Your task to perform on an android device: stop showing notifications on the lock screen Image 0: 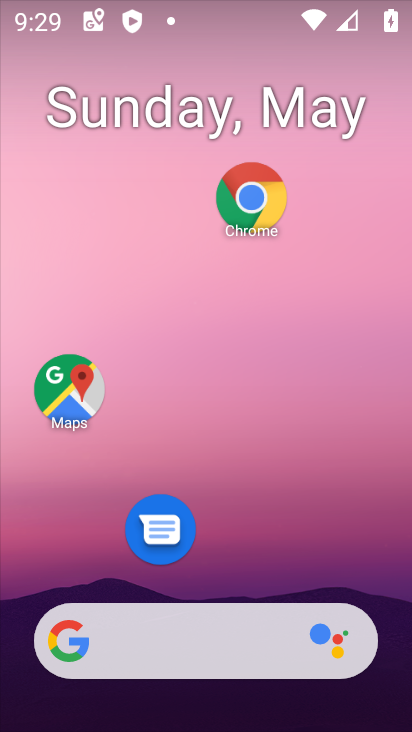
Step 0: drag from (264, 587) to (270, 78)
Your task to perform on an android device: stop showing notifications on the lock screen Image 1: 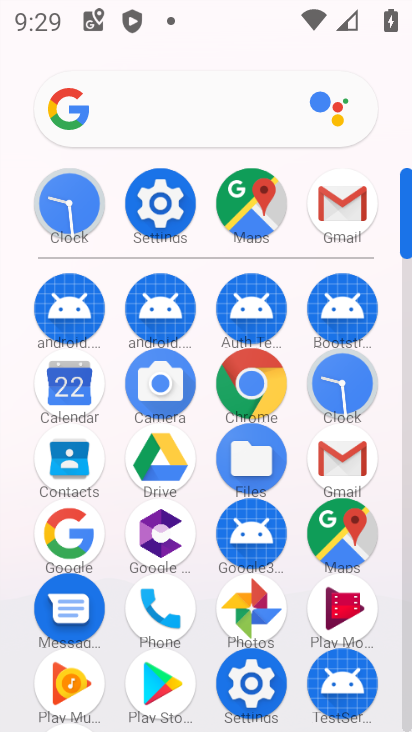
Step 1: click (151, 205)
Your task to perform on an android device: stop showing notifications on the lock screen Image 2: 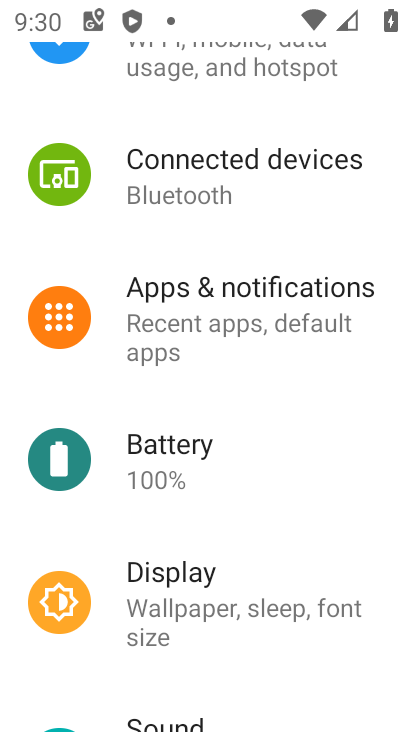
Step 2: click (290, 306)
Your task to perform on an android device: stop showing notifications on the lock screen Image 3: 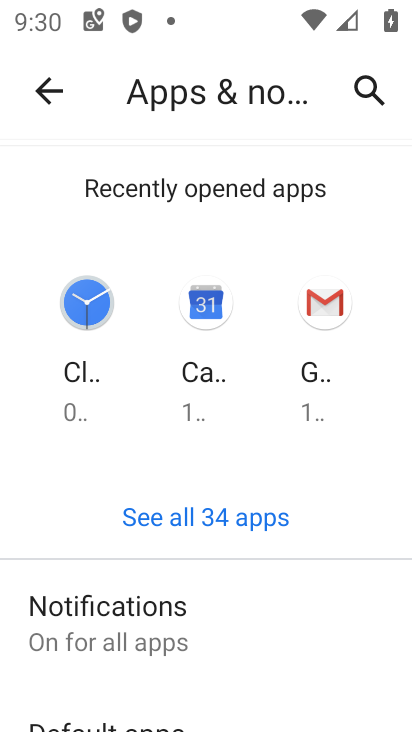
Step 3: click (180, 609)
Your task to perform on an android device: stop showing notifications on the lock screen Image 4: 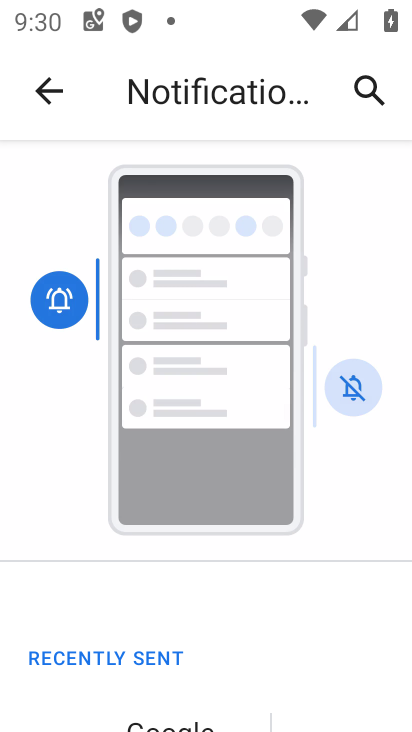
Step 4: drag from (202, 627) to (268, 129)
Your task to perform on an android device: stop showing notifications on the lock screen Image 5: 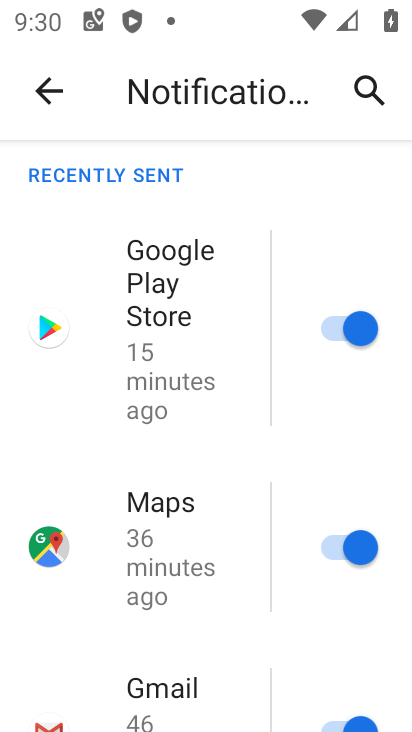
Step 5: drag from (238, 581) to (262, 162)
Your task to perform on an android device: stop showing notifications on the lock screen Image 6: 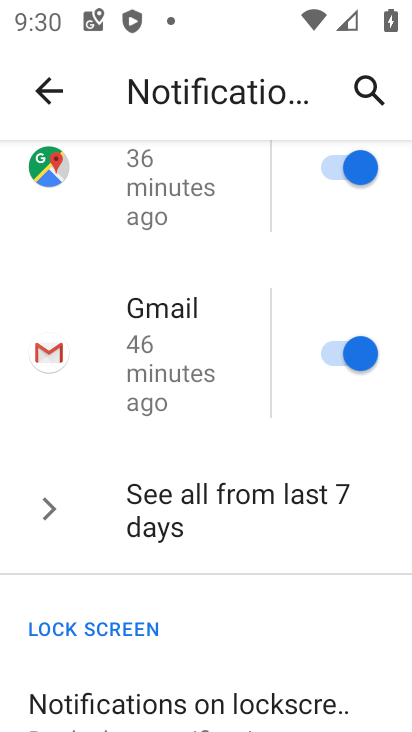
Step 6: drag from (245, 591) to (276, 233)
Your task to perform on an android device: stop showing notifications on the lock screen Image 7: 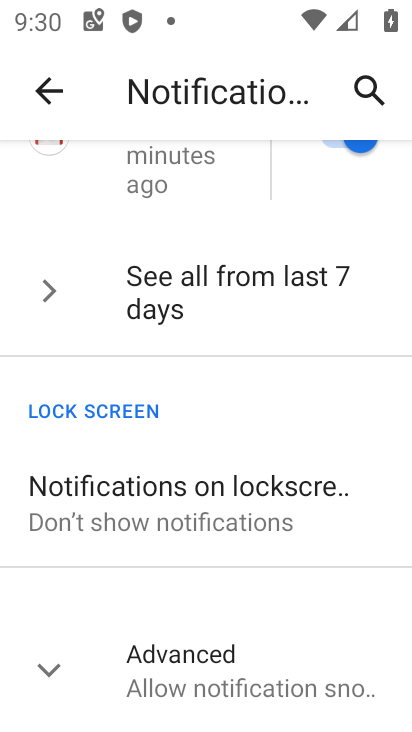
Step 7: click (130, 479)
Your task to perform on an android device: stop showing notifications on the lock screen Image 8: 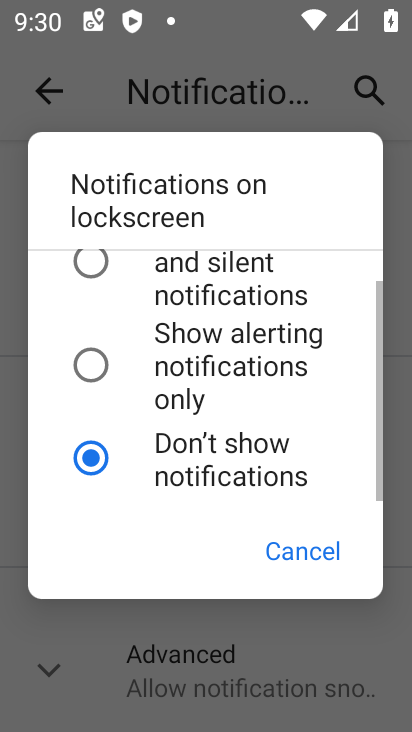
Step 8: click (142, 450)
Your task to perform on an android device: stop showing notifications on the lock screen Image 9: 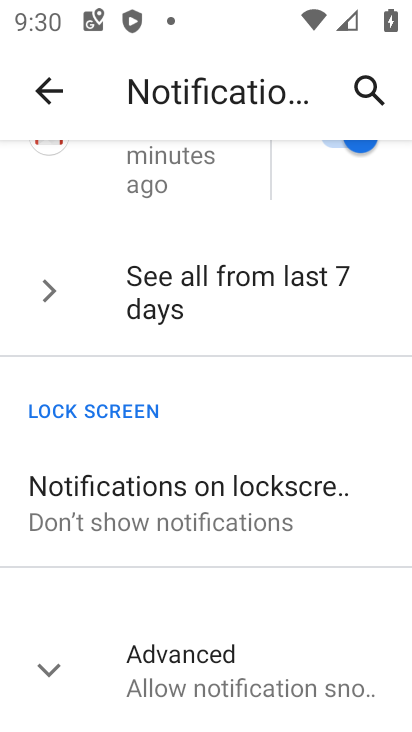
Step 9: task complete